Your task to perform on an android device: open a bookmark in the chrome app Image 0: 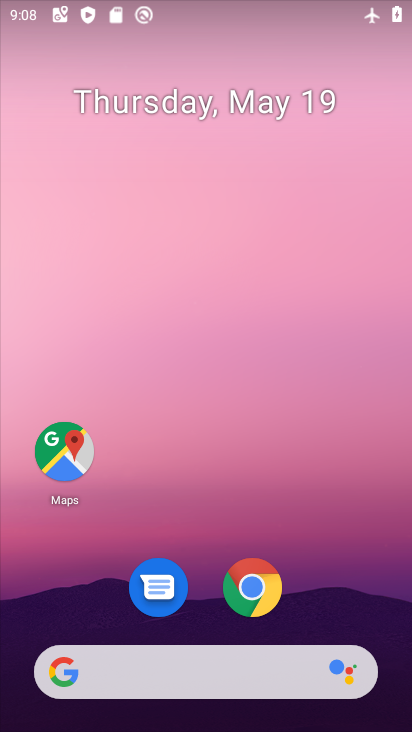
Step 0: drag from (336, 568) to (300, 0)
Your task to perform on an android device: open a bookmark in the chrome app Image 1: 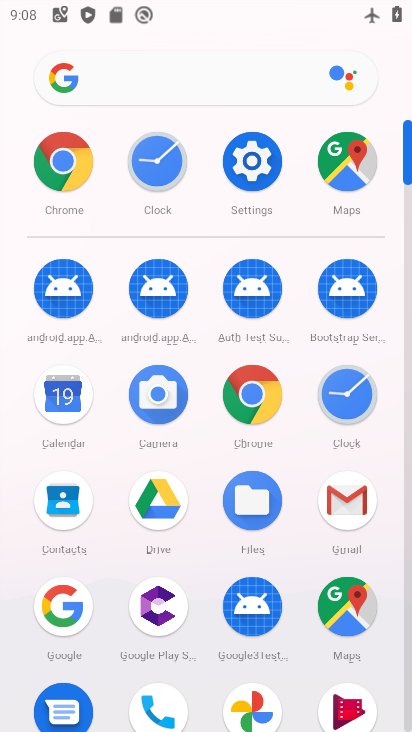
Step 1: click (247, 386)
Your task to perform on an android device: open a bookmark in the chrome app Image 2: 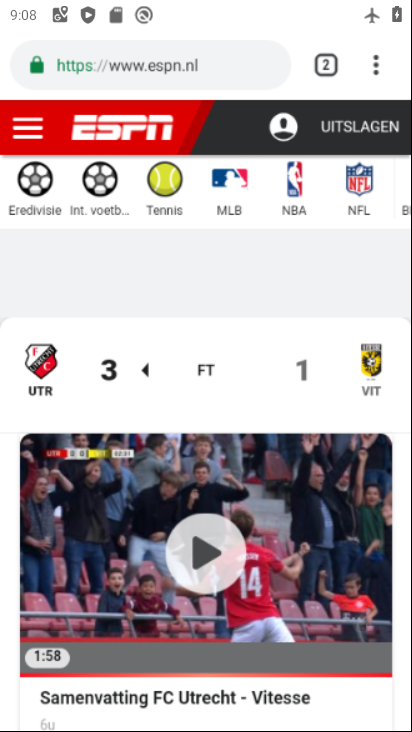
Step 2: click (170, 57)
Your task to perform on an android device: open a bookmark in the chrome app Image 3: 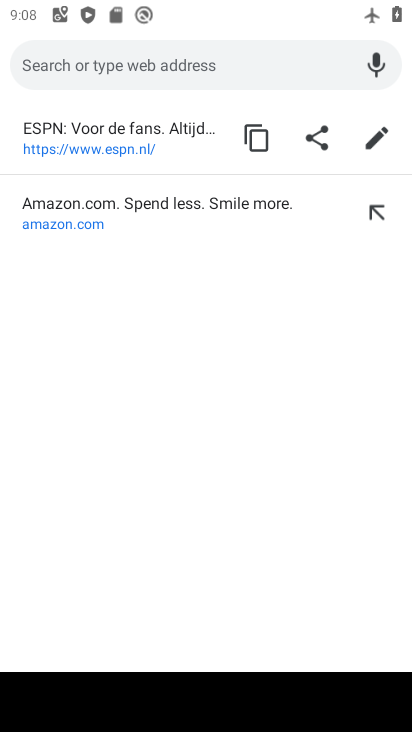
Step 3: press back button
Your task to perform on an android device: open a bookmark in the chrome app Image 4: 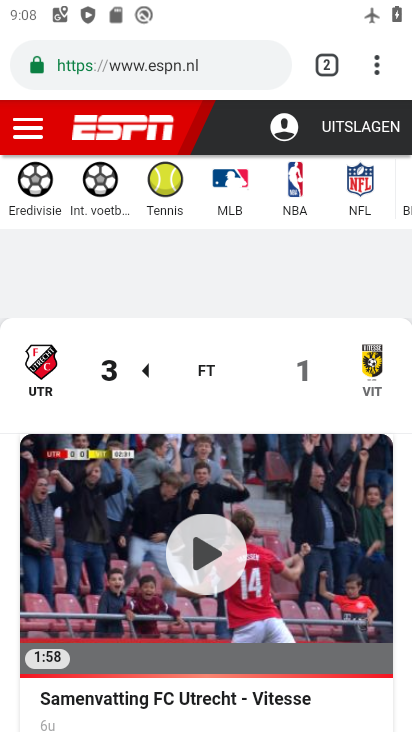
Step 4: drag from (368, 69) to (182, 241)
Your task to perform on an android device: open a bookmark in the chrome app Image 5: 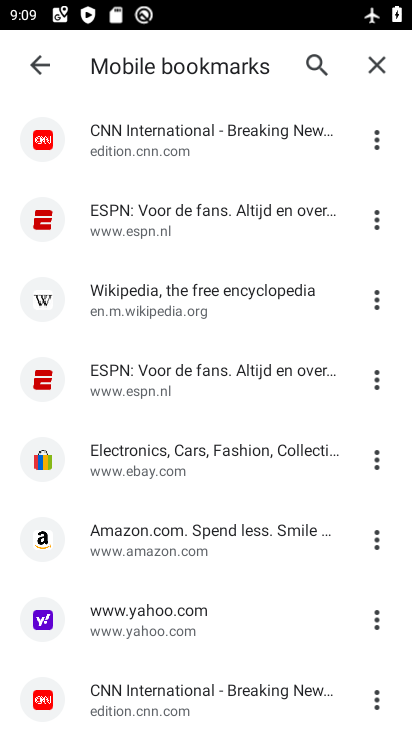
Step 5: click (205, 145)
Your task to perform on an android device: open a bookmark in the chrome app Image 6: 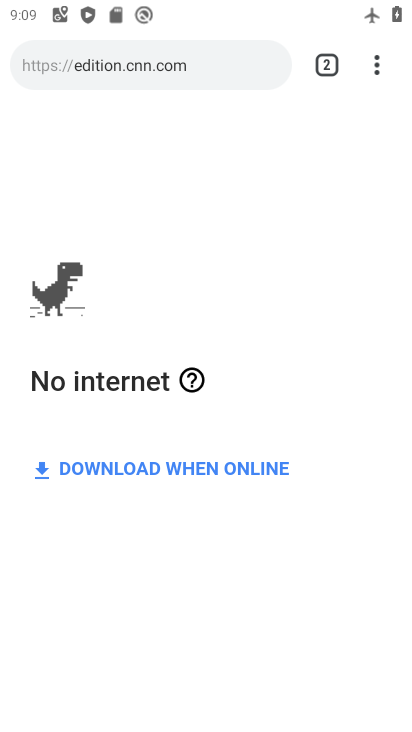
Step 6: task complete